Your task to perform on an android device: turn on the 12-hour format for clock Image 0: 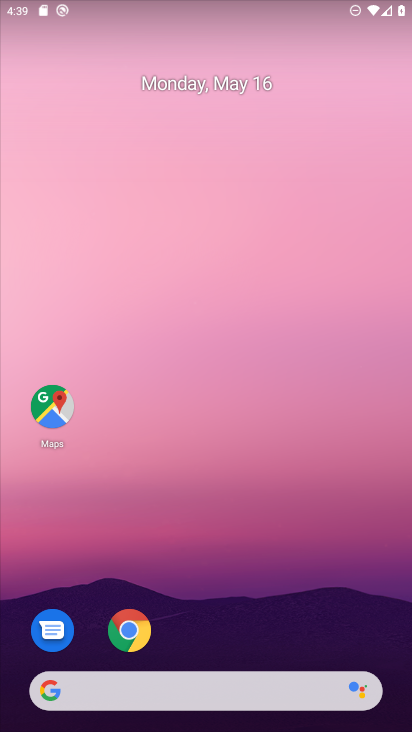
Step 0: drag from (323, 609) to (325, 17)
Your task to perform on an android device: turn on the 12-hour format for clock Image 1: 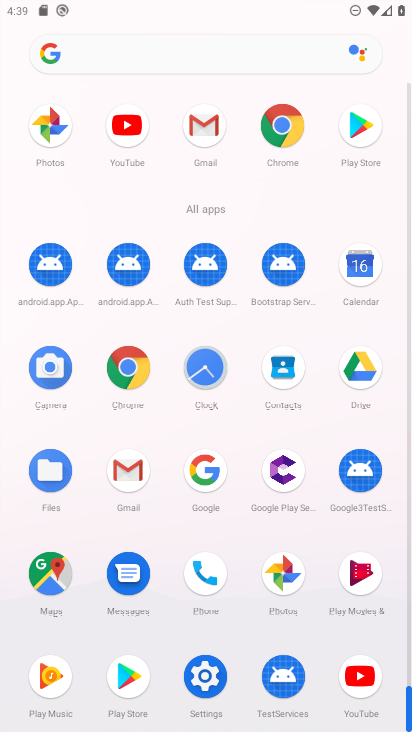
Step 1: click (213, 377)
Your task to perform on an android device: turn on the 12-hour format for clock Image 2: 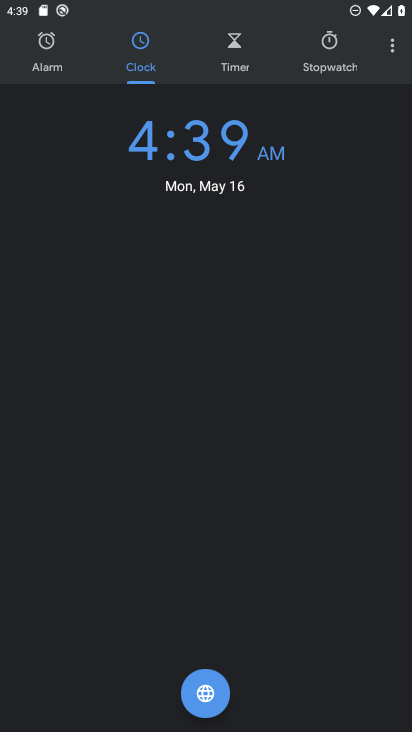
Step 2: click (390, 52)
Your task to perform on an android device: turn on the 12-hour format for clock Image 3: 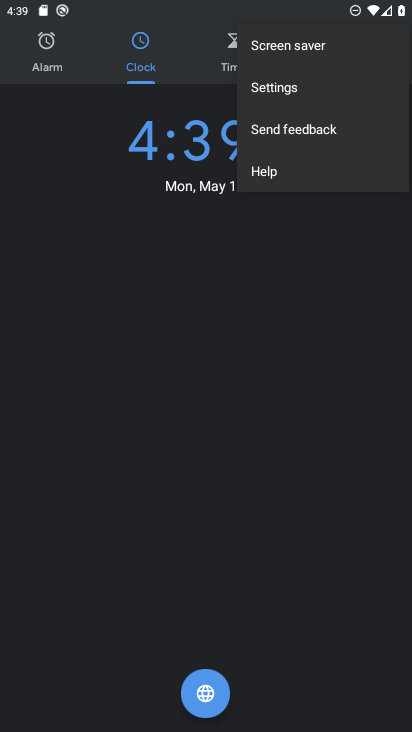
Step 3: click (276, 93)
Your task to perform on an android device: turn on the 12-hour format for clock Image 4: 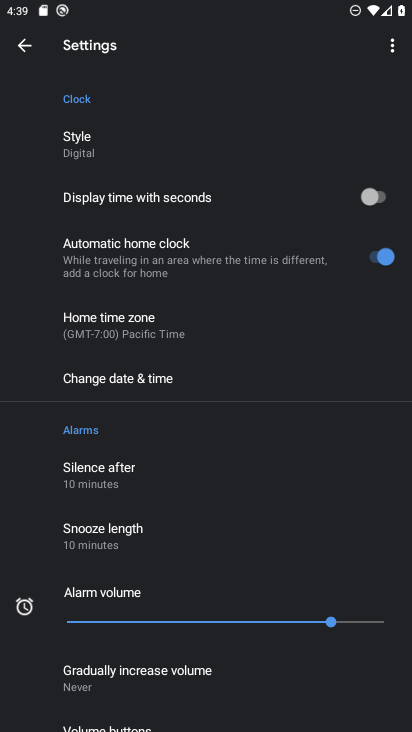
Step 4: click (187, 384)
Your task to perform on an android device: turn on the 12-hour format for clock Image 5: 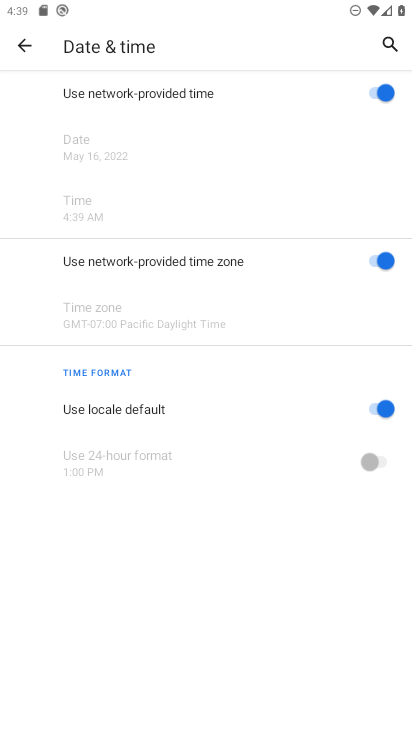
Step 5: task complete